Your task to perform on an android device: Open privacy settings Image 0: 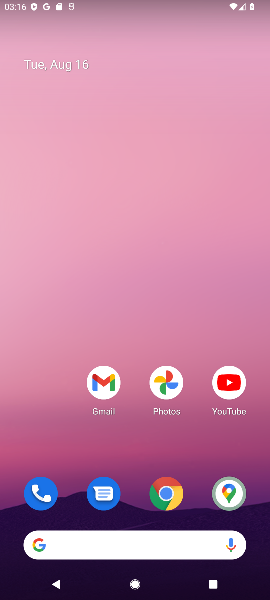
Step 0: press home button
Your task to perform on an android device: Open privacy settings Image 1: 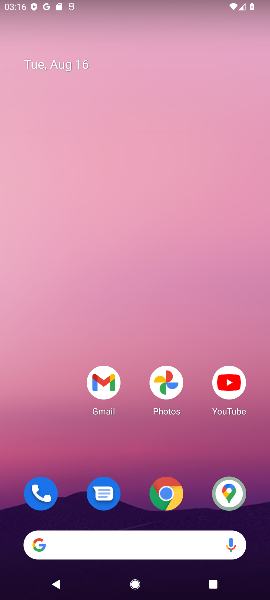
Step 1: drag from (68, 463) to (48, 86)
Your task to perform on an android device: Open privacy settings Image 2: 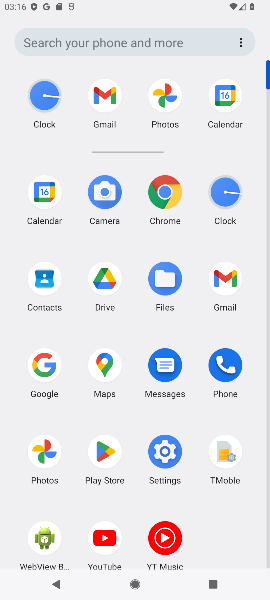
Step 2: click (163, 456)
Your task to perform on an android device: Open privacy settings Image 3: 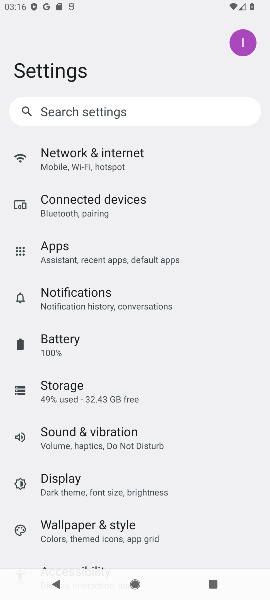
Step 3: drag from (217, 487) to (235, 397)
Your task to perform on an android device: Open privacy settings Image 4: 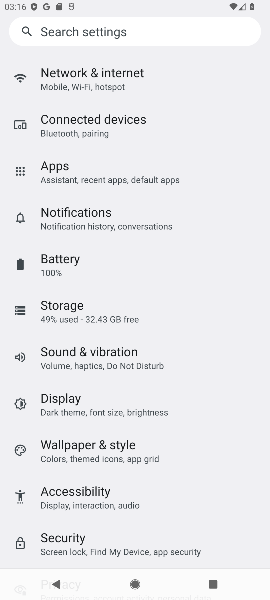
Step 4: drag from (217, 495) to (223, 418)
Your task to perform on an android device: Open privacy settings Image 5: 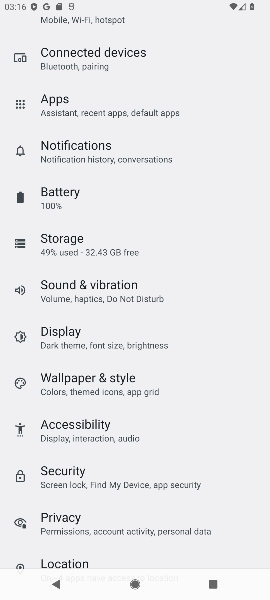
Step 5: drag from (229, 515) to (237, 372)
Your task to perform on an android device: Open privacy settings Image 6: 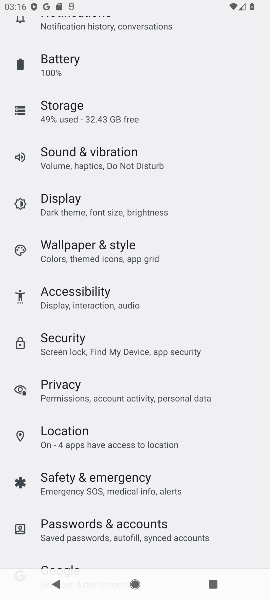
Step 6: drag from (223, 464) to (240, 302)
Your task to perform on an android device: Open privacy settings Image 7: 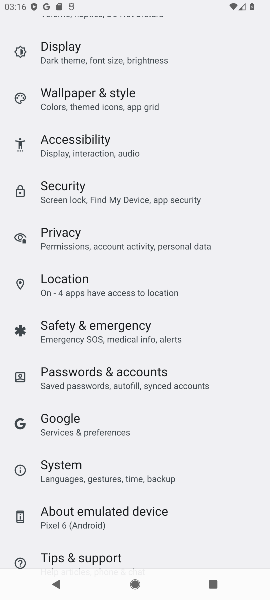
Step 7: drag from (221, 457) to (233, 337)
Your task to perform on an android device: Open privacy settings Image 8: 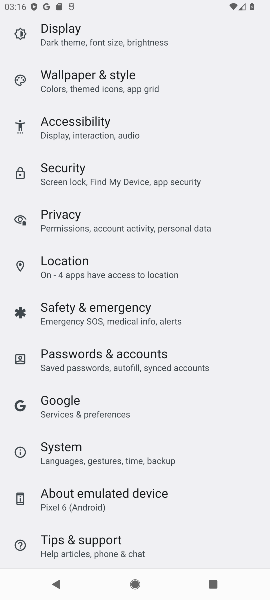
Step 8: click (214, 210)
Your task to perform on an android device: Open privacy settings Image 9: 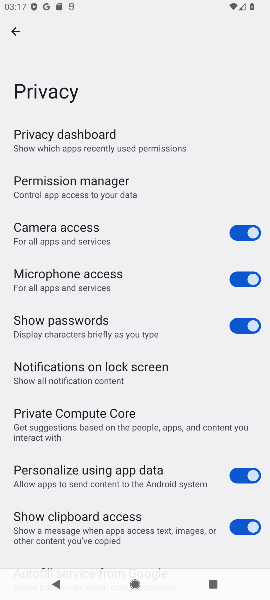
Step 9: task complete